Your task to perform on an android device: open chrome and create a bookmark for the current page Image 0: 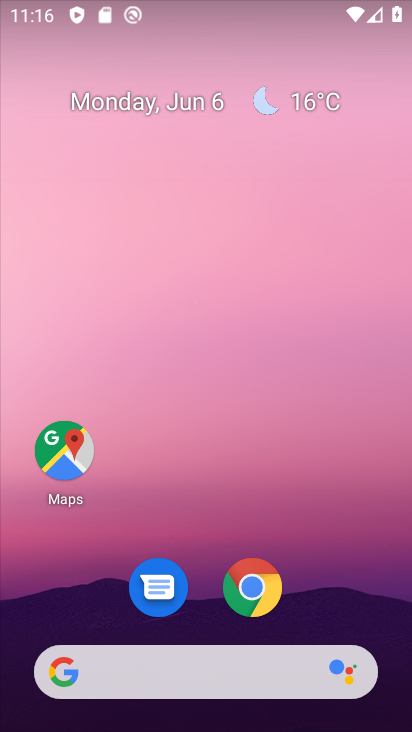
Step 0: drag from (316, 547) to (223, 34)
Your task to perform on an android device: open chrome and create a bookmark for the current page Image 1: 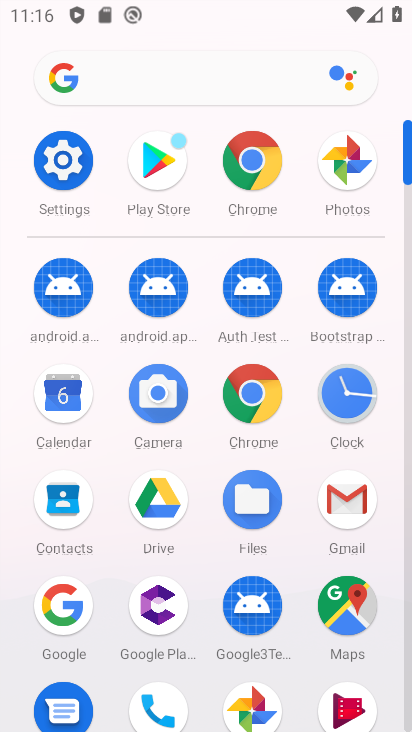
Step 1: drag from (3, 552) to (10, 281)
Your task to perform on an android device: open chrome and create a bookmark for the current page Image 2: 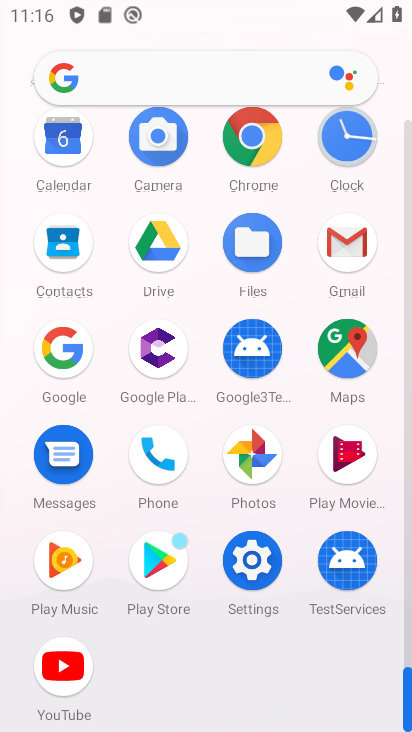
Step 2: click (249, 138)
Your task to perform on an android device: open chrome and create a bookmark for the current page Image 3: 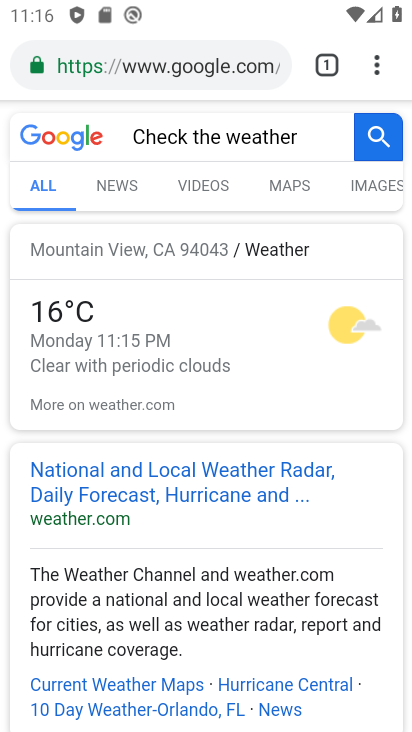
Step 3: drag from (371, 60) to (182, 236)
Your task to perform on an android device: open chrome and create a bookmark for the current page Image 4: 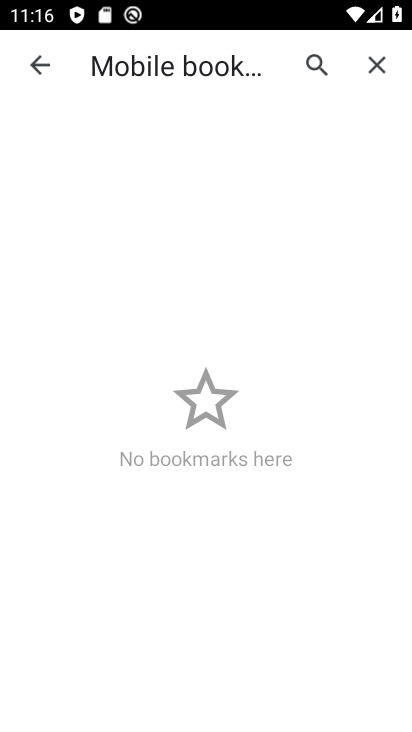
Step 4: click (38, 66)
Your task to perform on an android device: open chrome and create a bookmark for the current page Image 5: 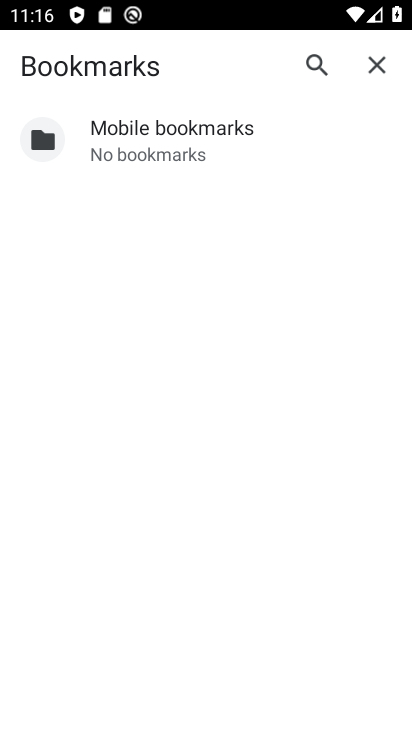
Step 5: click (377, 61)
Your task to perform on an android device: open chrome and create a bookmark for the current page Image 6: 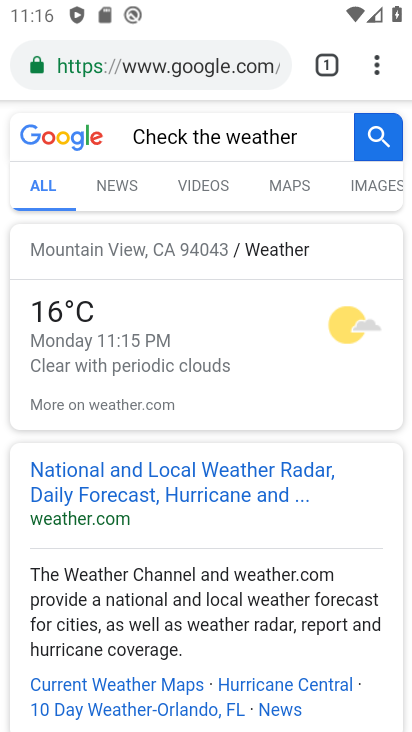
Step 6: task complete